Your task to perform on an android device: Turn off the flashlight Image 0: 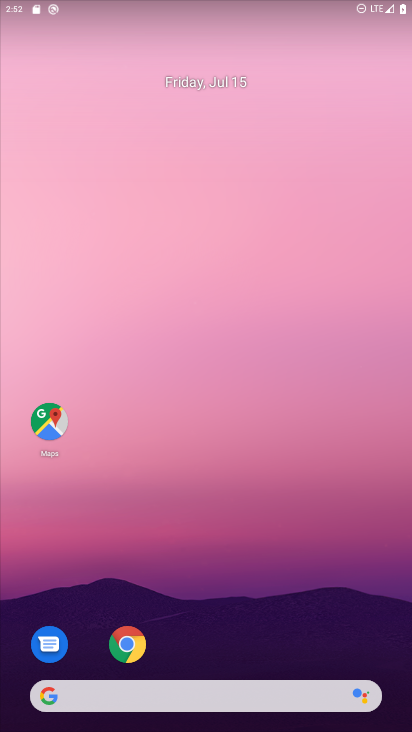
Step 0: drag from (10, 715) to (283, 103)
Your task to perform on an android device: Turn off the flashlight Image 1: 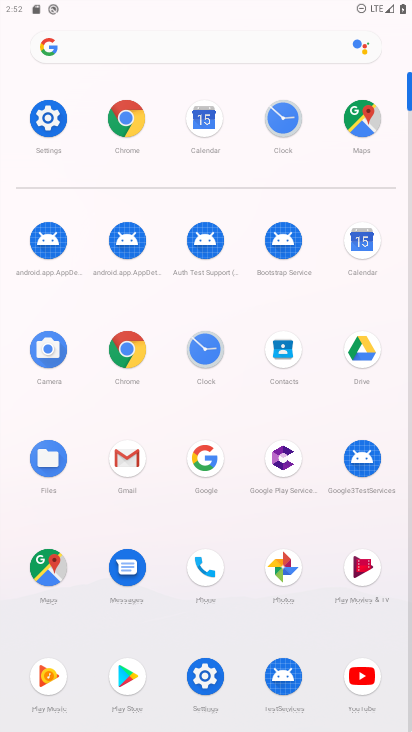
Step 1: click (36, 132)
Your task to perform on an android device: Turn off the flashlight Image 2: 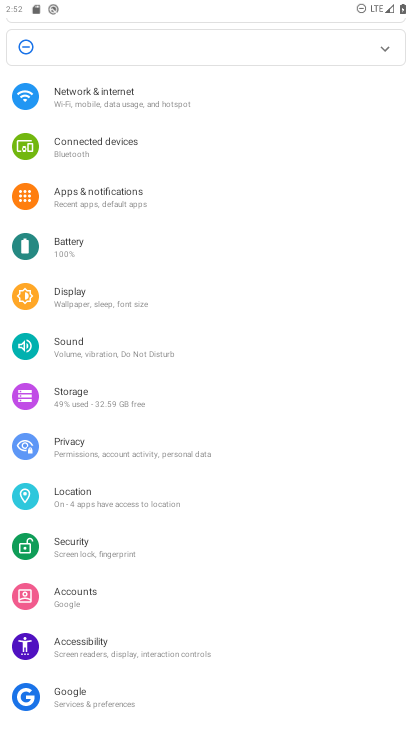
Step 2: task complete